Your task to perform on an android device: turn on sleep mode Image 0: 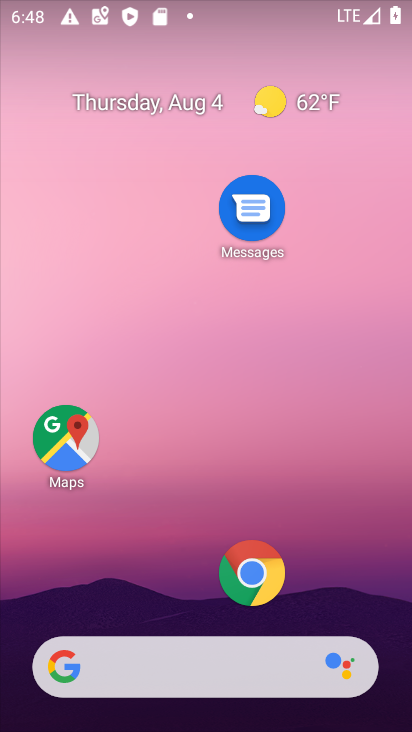
Step 0: drag from (199, 549) to (250, 64)
Your task to perform on an android device: turn on sleep mode Image 1: 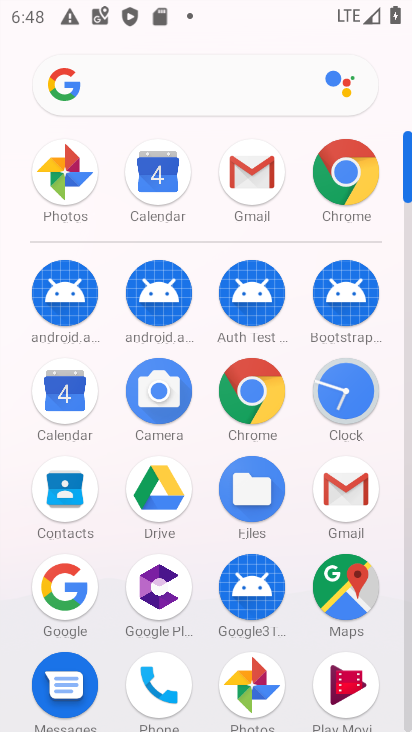
Step 1: drag from (220, 508) to (219, 46)
Your task to perform on an android device: turn on sleep mode Image 2: 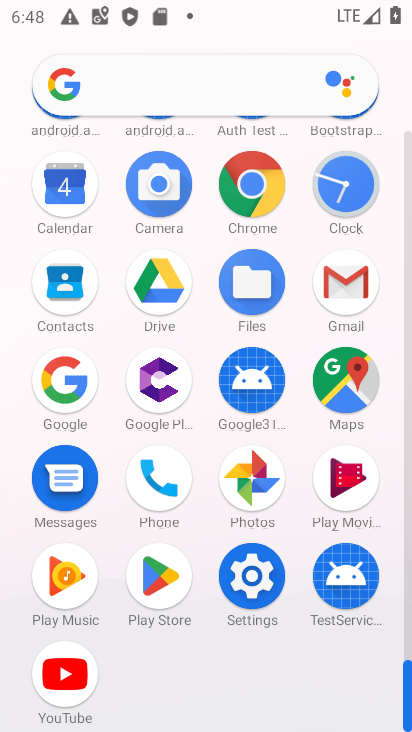
Step 2: click (260, 553)
Your task to perform on an android device: turn on sleep mode Image 3: 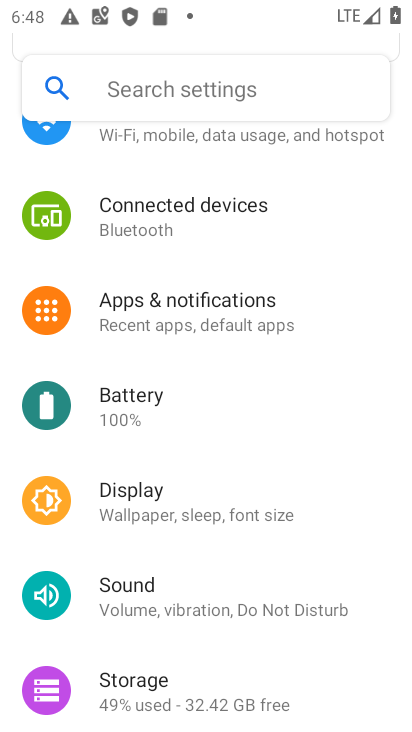
Step 3: click (144, 507)
Your task to perform on an android device: turn on sleep mode Image 4: 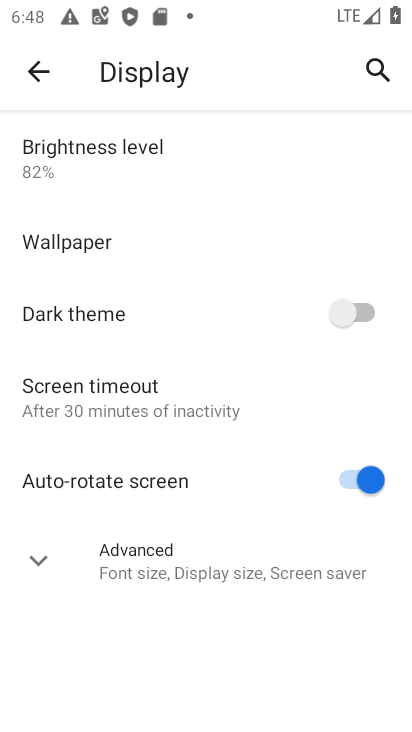
Step 4: task complete